Your task to perform on an android device: turn on location history Image 0: 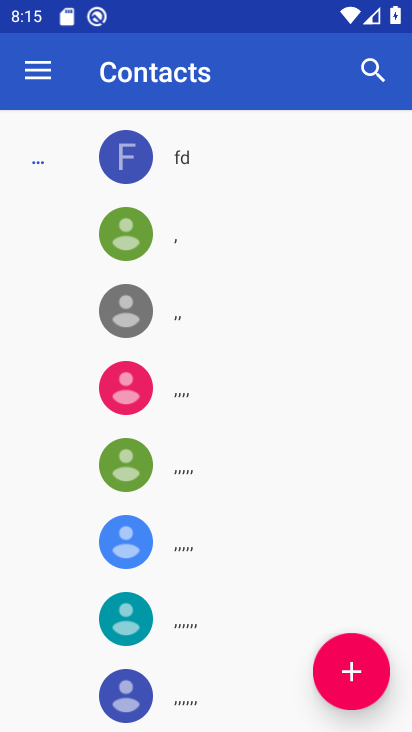
Step 0: press home button
Your task to perform on an android device: turn on location history Image 1: 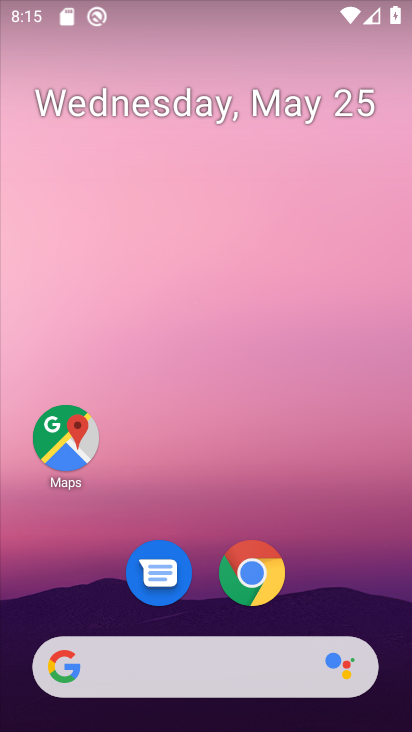
Step 1: drag from (388, 710) to (283, 0)
Your task to perform on an android device: turn on location history Image 2: 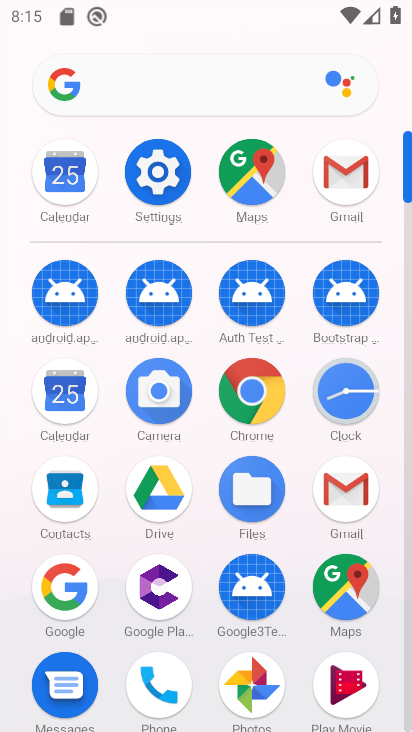
Step 2: drag from (105, 709) to (75, 321)
Your task to perform on an android device: turn on location history Image 3: 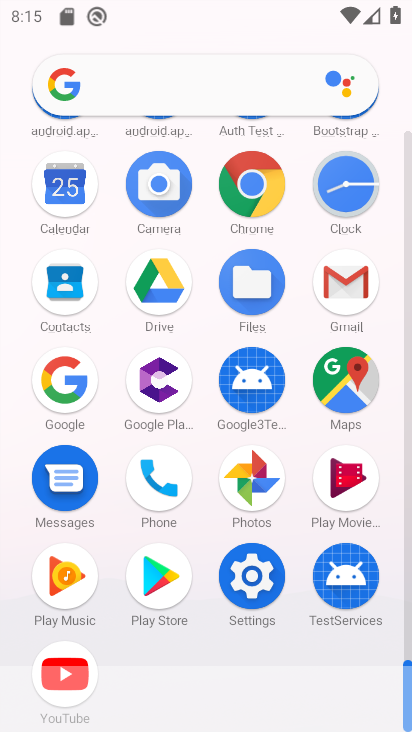
Step 3: click (249, 572)
Your task to perform on an android device: turn on location history Image 4: 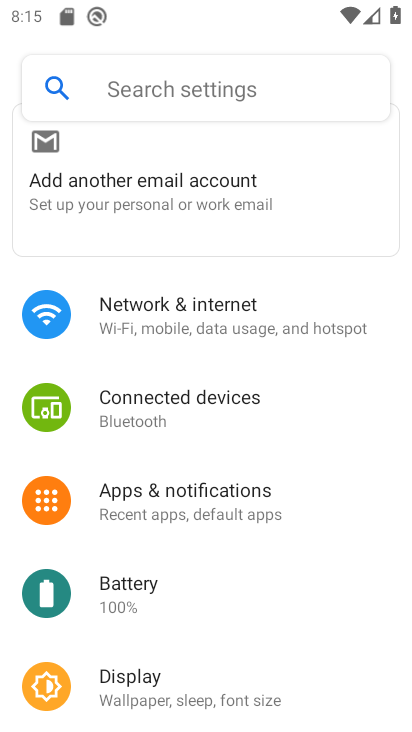
Step 4: drag from (315, 701) to (269, 289)
Your task to perform on an android device: turn on location history Image 5: 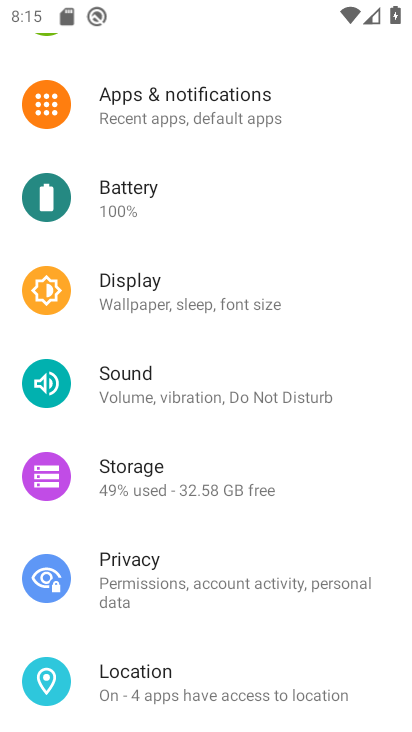
Step 5: click (123, 693)
Your task to perform on an android device: turn on location history Image 6: 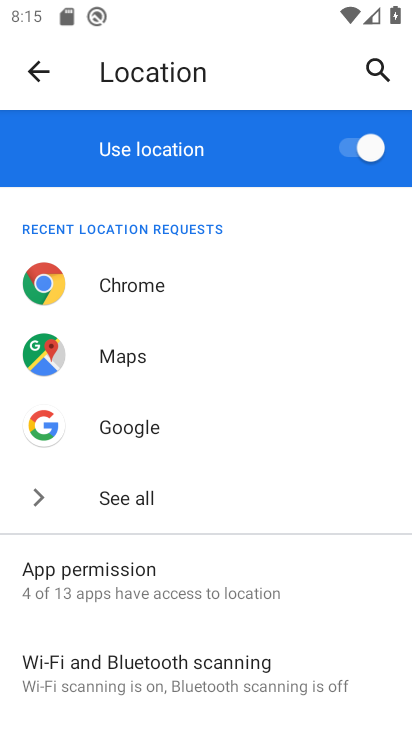
Step 6: drag from (333, 712) to (295, 299)
Your task to perform on an android device: turn on location history Image 7: 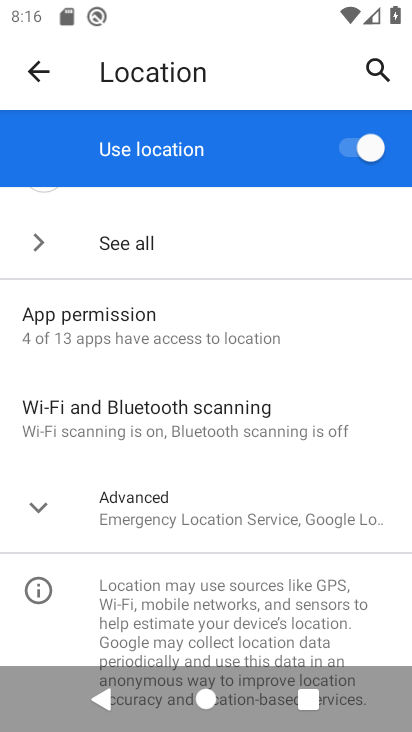
Step 7: click (33, 656)
Your task to perform on an android device: turn on location history Image 8: 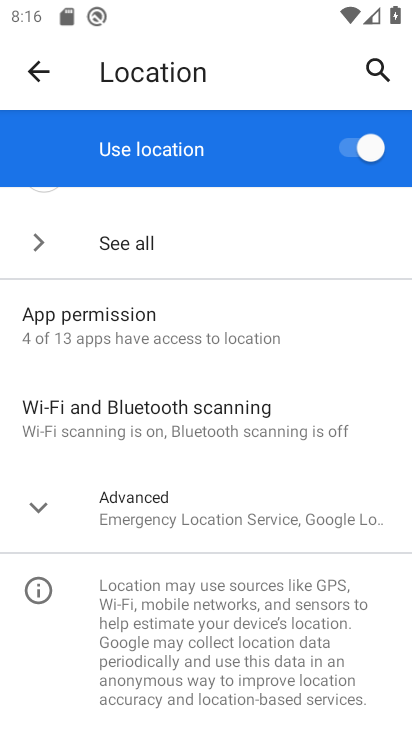
Step 8: drag from (324, 685) to (296, 247)
Your task to perform on an android device: turn on location history Image 9: 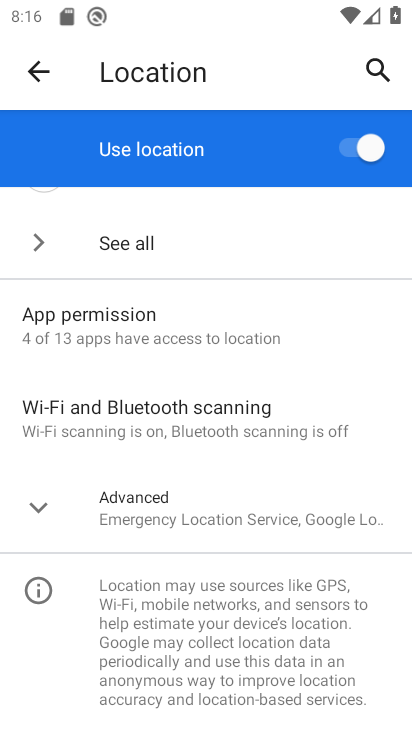
Step 9: click (33, 510)
Your task to perform on an android device: turn on location history Image 10: 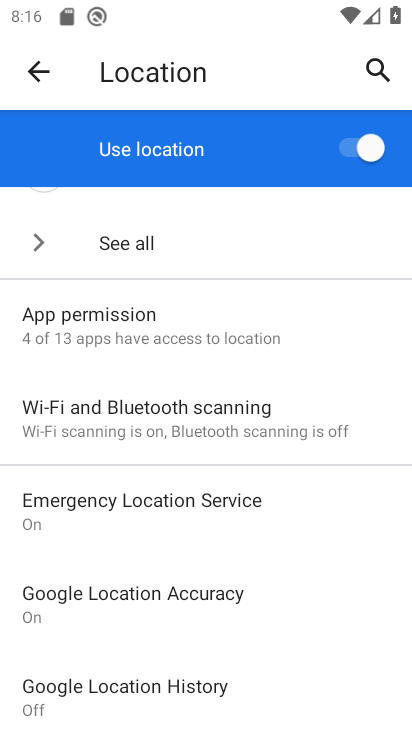
Step 10: drag from (275, 673) to (266, 341)
Your task to perform on an android device: turn on location history Image 11: 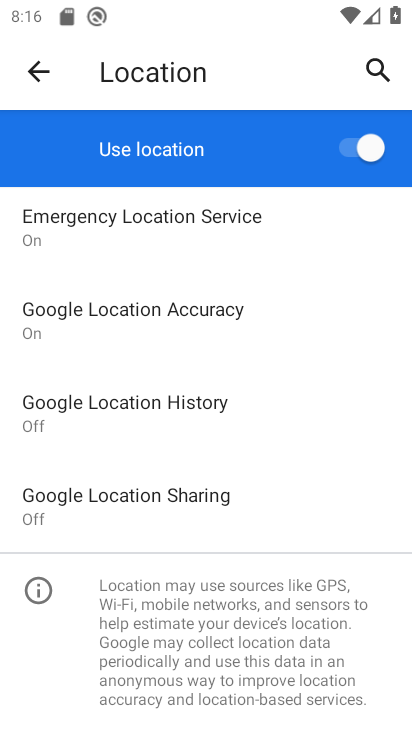
Step 11: click (93, 405)
Your task to perform on an android device: turn on location history Image 12: 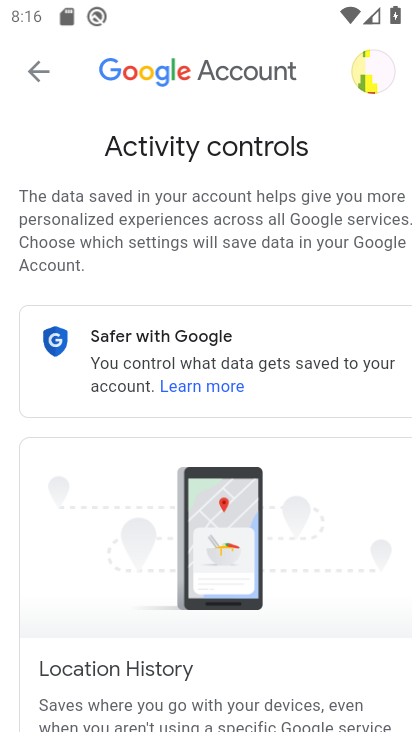
Step 12: drag from (284, 645) to (296, 301)
Your task to perform on an android device: turn on location history Image 13: 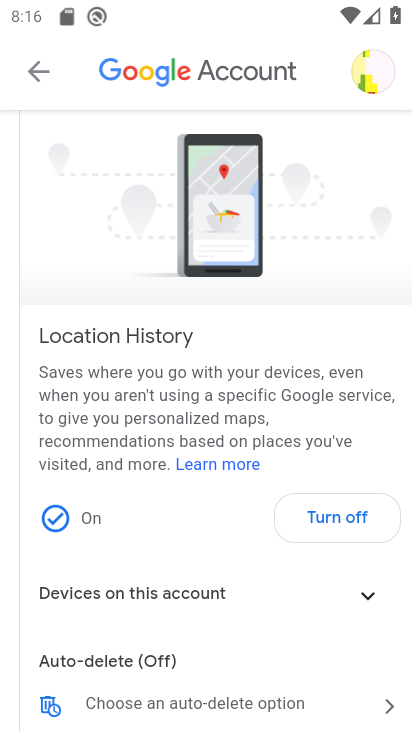
Step 13: click (309, 513)
Your task to perform on an android device: turn on location history Image 14: 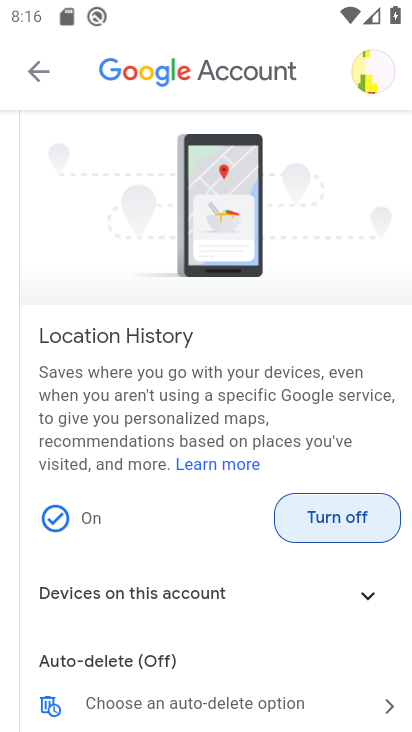
Step 14: drag from (249, 691) to (249, 434)
Your task to perform on an android device: turn on location history Image 15: 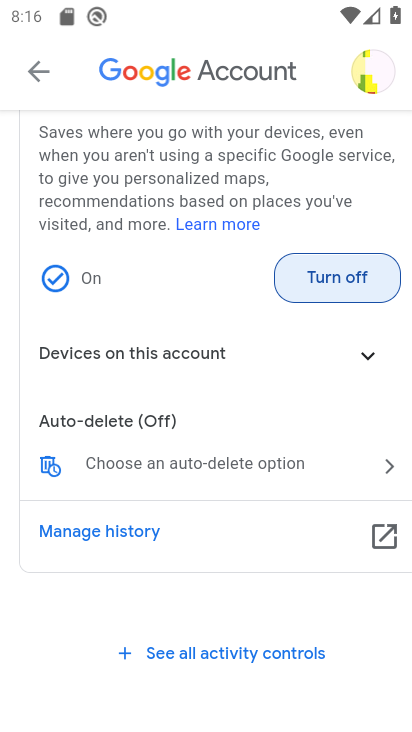
Step 15: drag from (236, 682) to (242, 500)
Your task to perform on an android device: turn on location history Image 16: 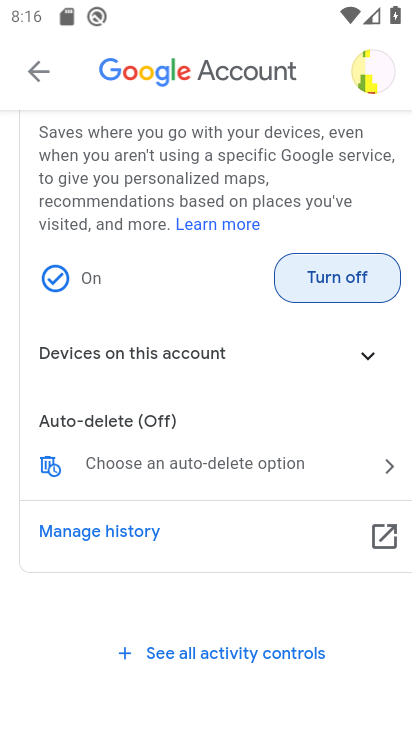
Step 16: click (313, 271)
Your task to perform on an android device: turn on location history Image 17: 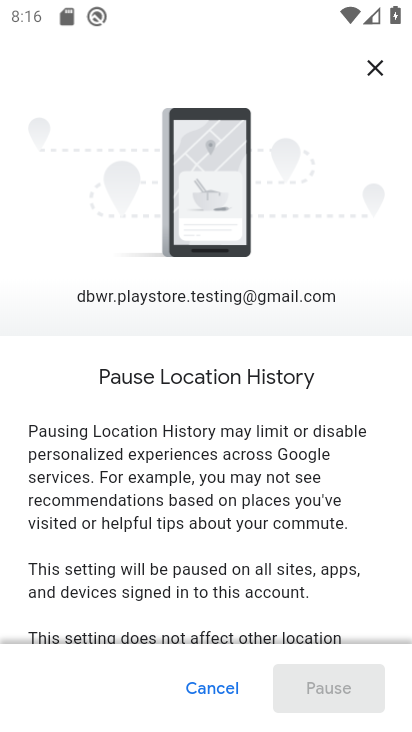
Step 17: drag from (232, 624) to (241, 260)
Your task to perform on an android device: turn on location history Image 18: 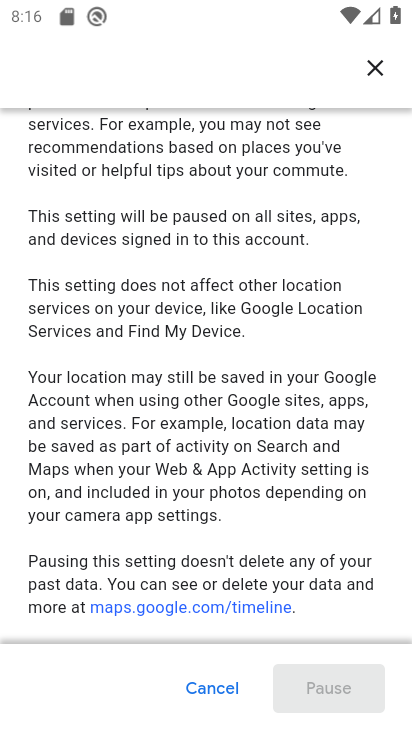
Step 18: drag from (237, 622) to (211, 143)
Your task to perform on an android device: turn on location history Image 19: 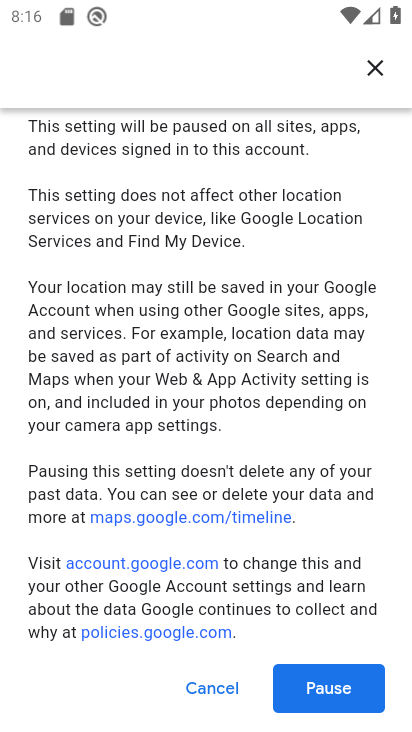
Step 19: click (305, 692)
Your task to perform on an android device: turn on location history Image 20: 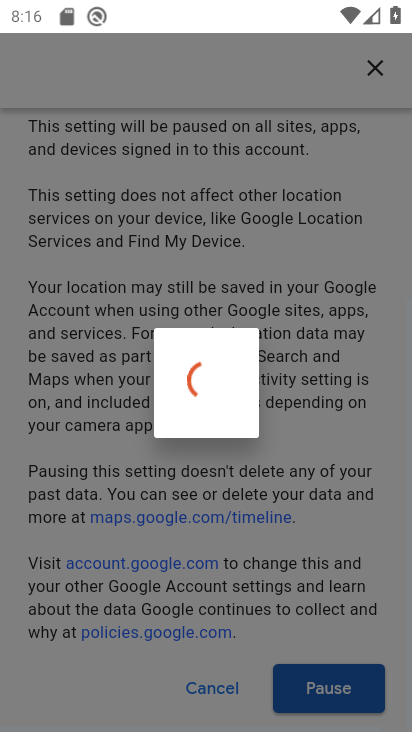
Step 20: click (305, 691)
Your task to perform on an android device: turn on location history Image 21: 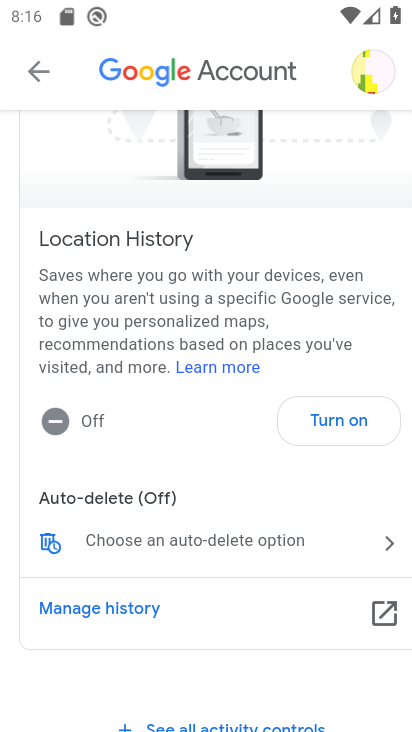
Step 21: click (24, 69)
Your task to perform on an android device: turn on location history Image 22: 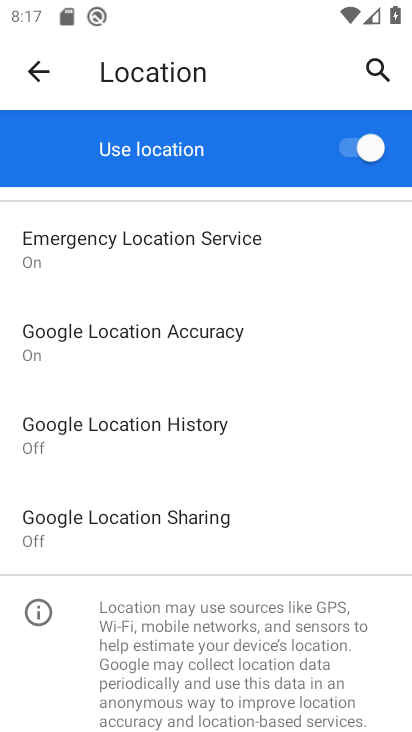
Step 22: click (84, 422)
Your task to perform on an android device: turn on location history Image 23: 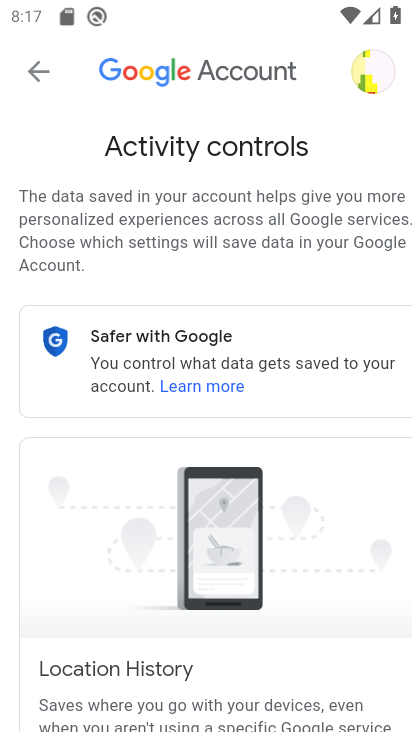
Step 23: drag from (186, 700) to (154, 254)
Your task to perform on an android device: turn on location history Image 24: 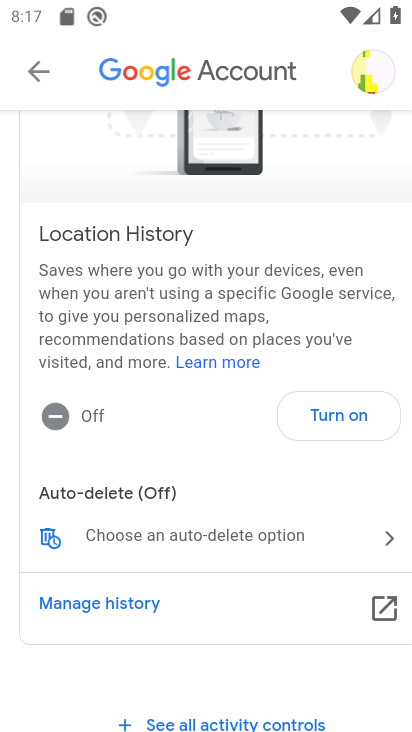
Step 24: click (350, 412)
Your task to perform on an android device: turn on location history Image 25: 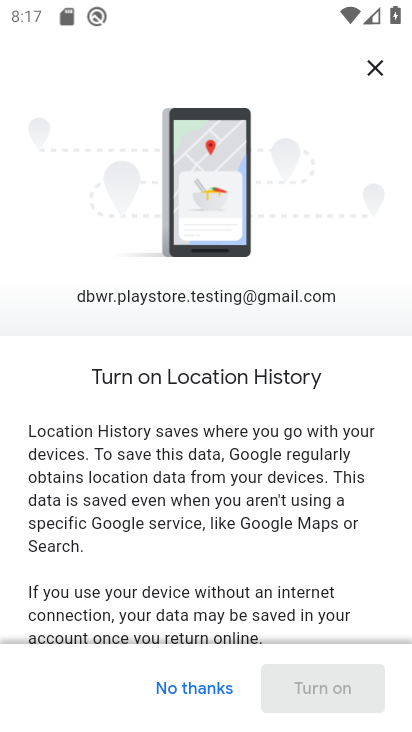
Step 25: drag from (198, 608) to (173, 314)
Your task to perform on an android device: turn on location history Image 26: 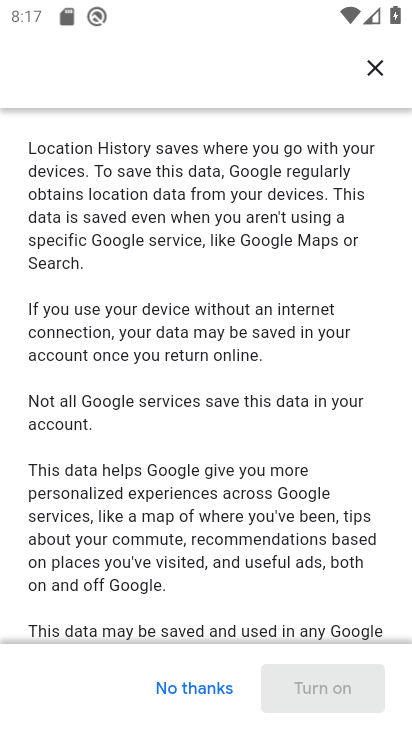
Step 26: drag from (211, 599) to (181, 234)
Your task to perform on an android device: turn on location history Image 27: 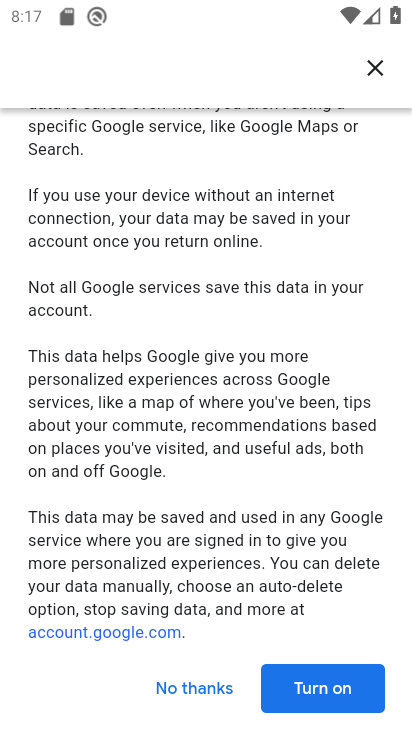
Step 27: click (296, 688)
Your task to perform on an android device: turn on location history Image 28: 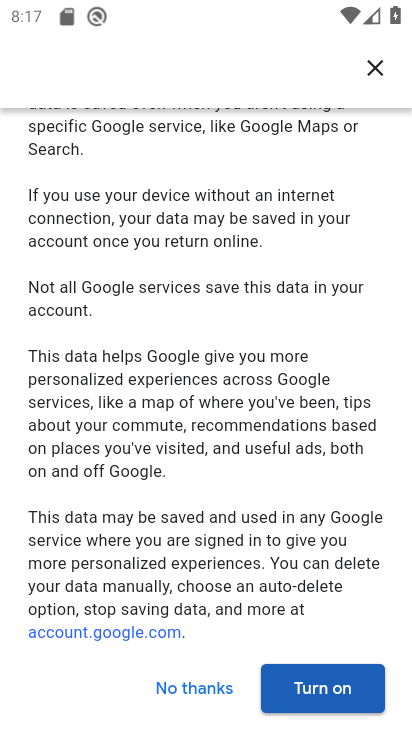
Step 28: click (331, 689)
Your task to perform on an android device: turn on location history Image 29: 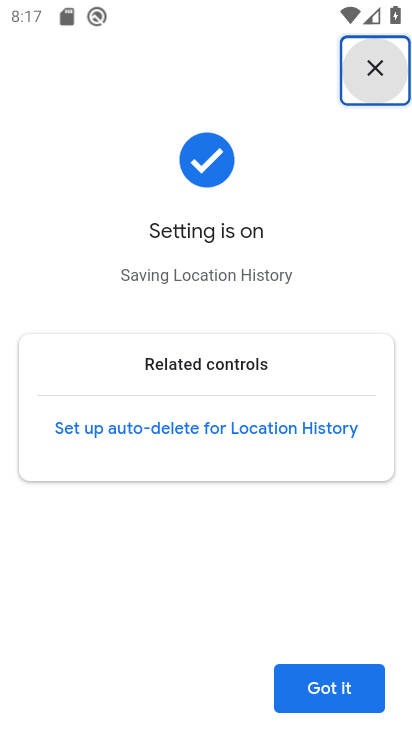
Step 29: click (356, 693)
Your task to perform on an android device: turn on location history Image 30: 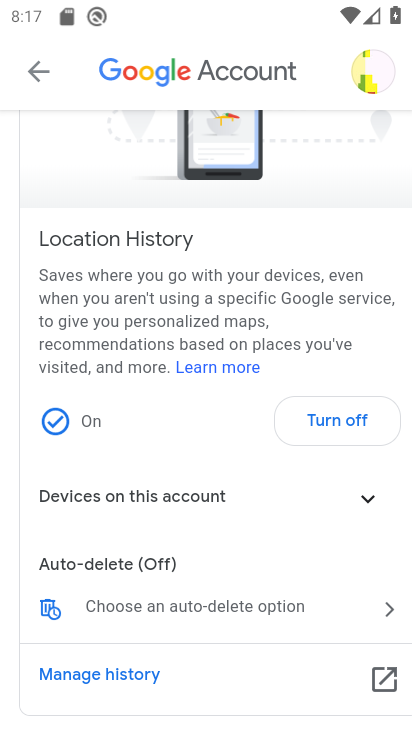
Step 30: task complete